Your task to perform on an android device: move a message to another label in the gmail app Image 0: 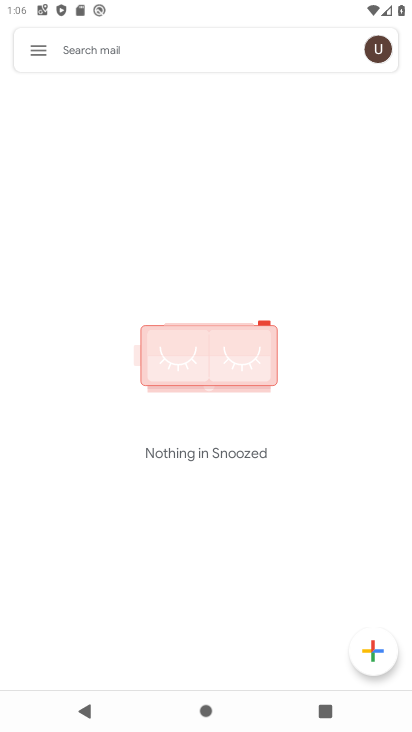
Step 0: click (28, 50)
Your task to perform on an android device: move a message to another label in the gmail app Image 1: 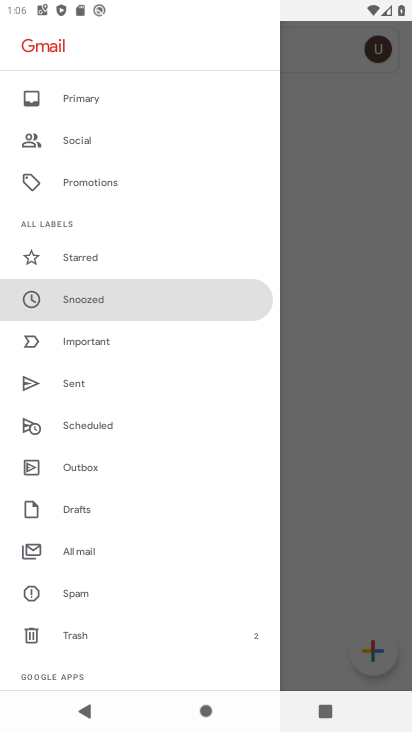
Step 1: click (93, 101)
Your task to perform on an android device: move a message to another label in the gmail app Image 2: 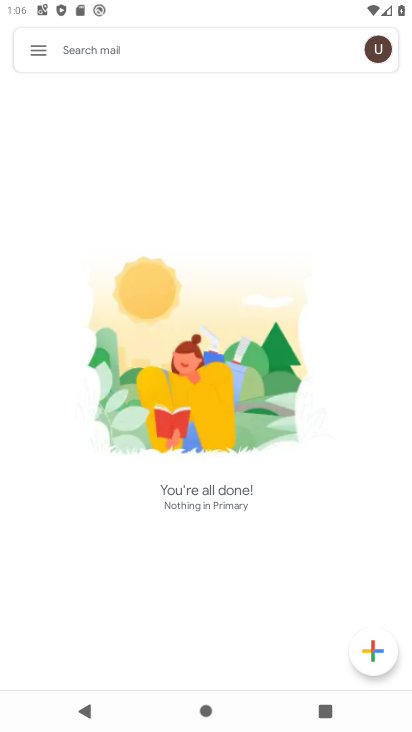
Step 2: task complete